Your task to perform on an android device: change text size in settings app Image 0: 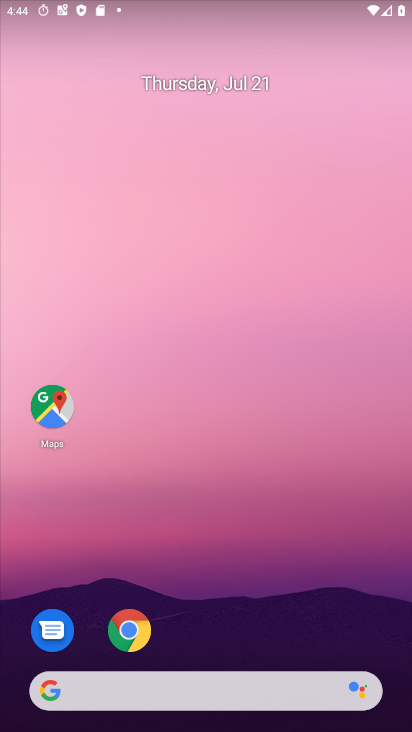
Step 0: drag from (210, 694) to (271, 30)
Your task to perform on an android device: change text size in settings app Image 1: 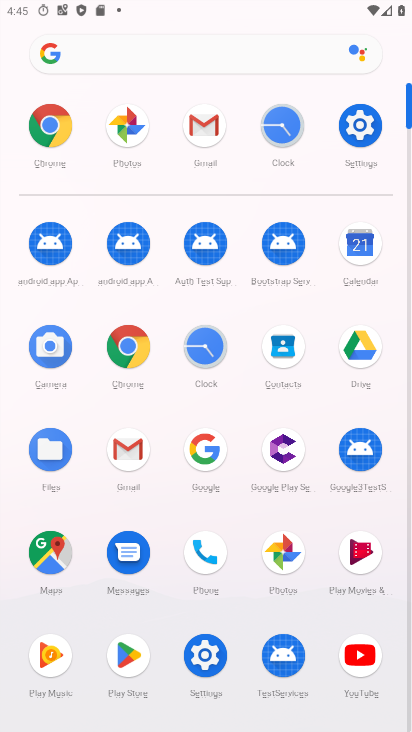
Step 1: click (358, 125)
Your task to perform on an android device: change text size in settings app Image 2: 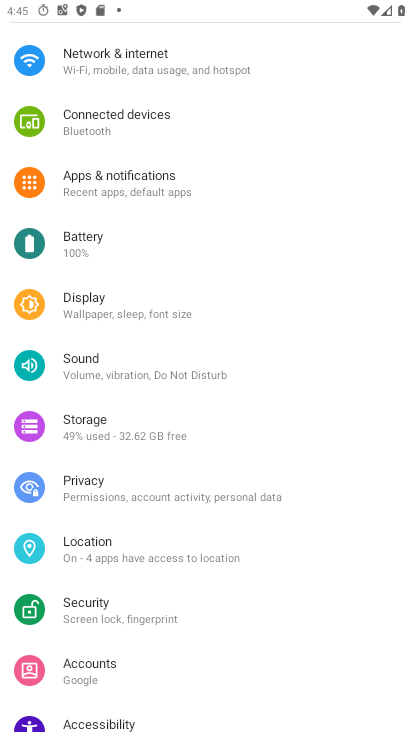
Step 2: drag from (153, 530) to (187, 418)
Your task to perform on an android device: change text size in settings app Image 3: 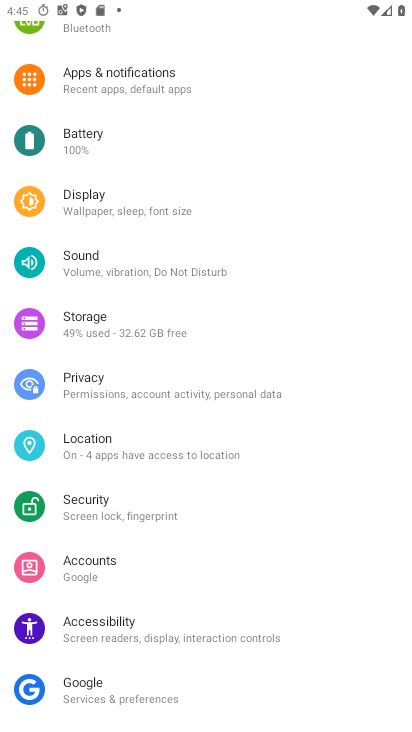
Step 3: click (105, 638)
Your task to perform on an android device: change text size in settings app Image 4: 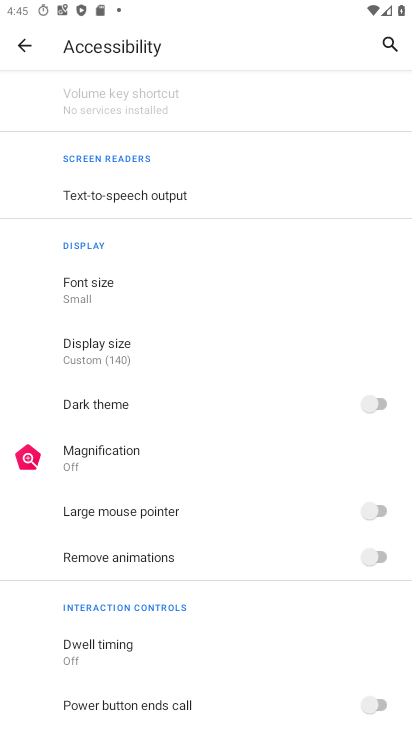
Step 4: click (113, 277)
Your task to perform on an android device: change text size in settings app Image 5: 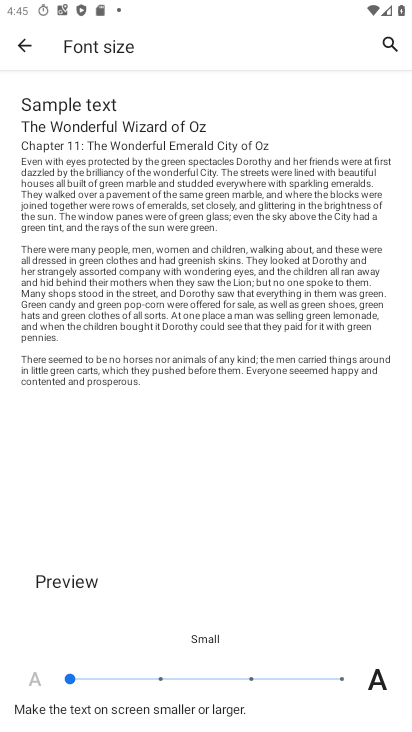
Step 5: click (250, 677)
Your task to perform on an android device: change text size in settings app Image 6: 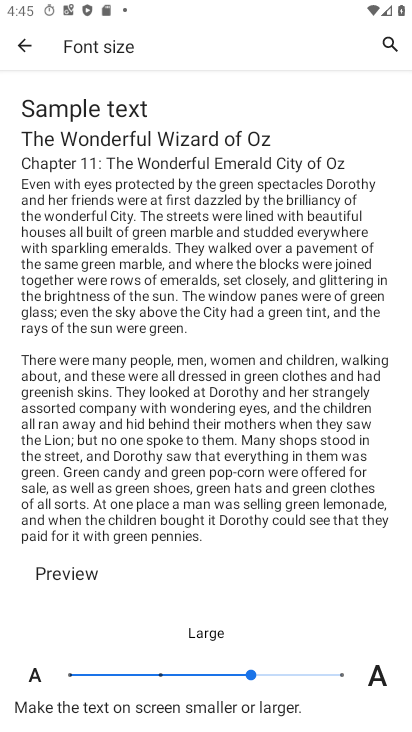
Step 6: task complete